Your task to perform on an android device: star an email in the gmail app Image 0: 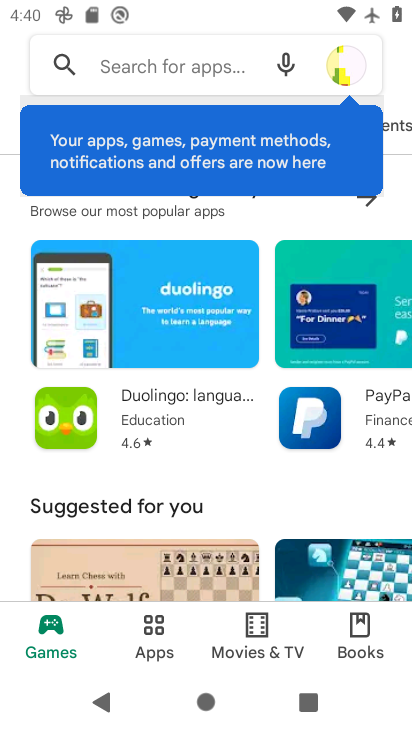
Step 0: press home button
Your task to perform on an android device: star an email in the gmail app Image 1: 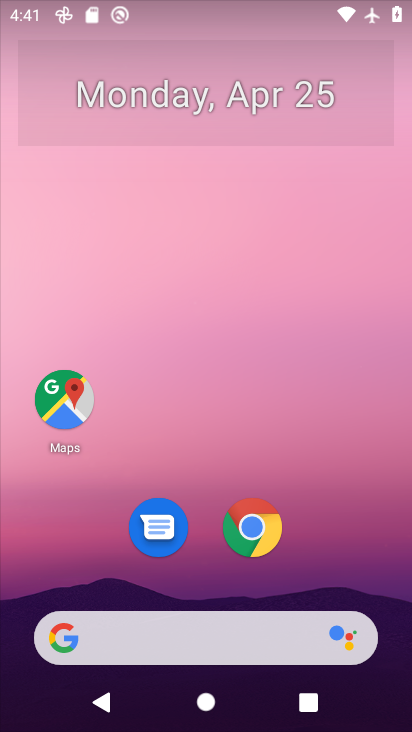
Step 1: drag from (390, 641) to (329, 239)
Your task to perform on an android device: star an email in the gmail app Image 2: 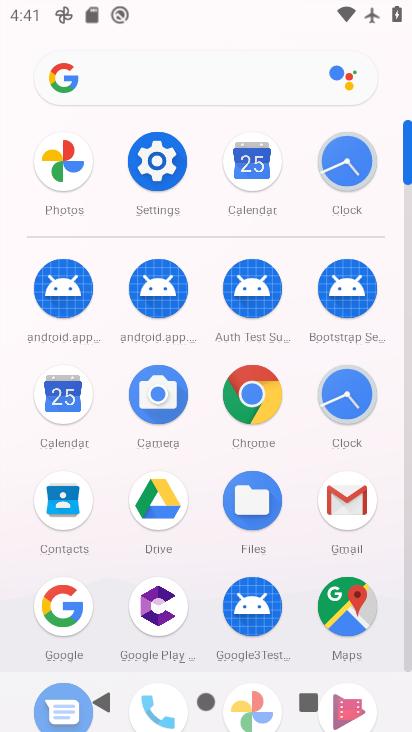
Step 2: click (405, 655)
Your task to perform on an android device: star an email in the gmail app Image 3: 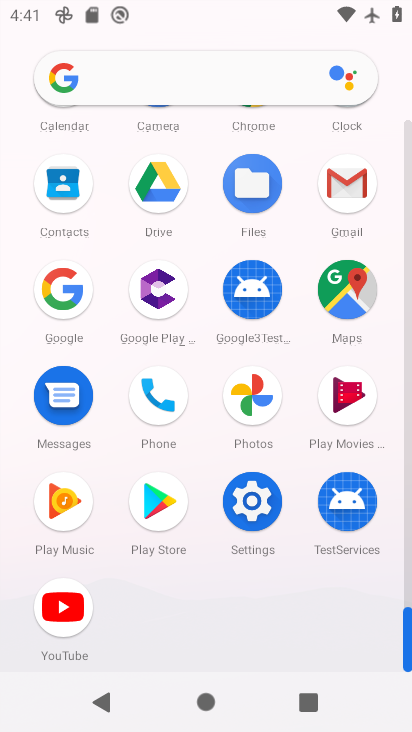
Step 3: click (342, 181)
Your task to perform on an android device: star an email in the gmail app Image 4: 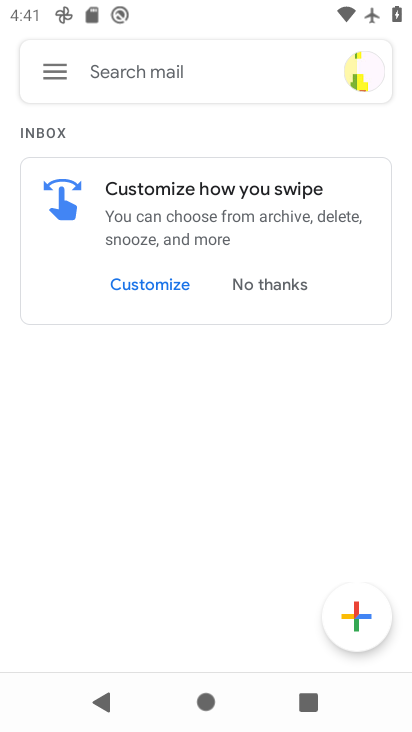
Step 4: click (47, 67)
Your task to perform on an android device: star an email in the gmail app Image 5: 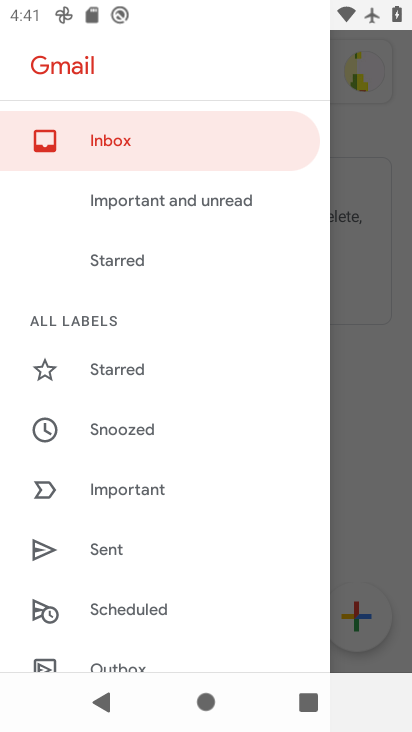
Step 5: drag from (226, 627) to (225, 206)
Your task to perform on an android device: star an email in the gmail app Image 6: 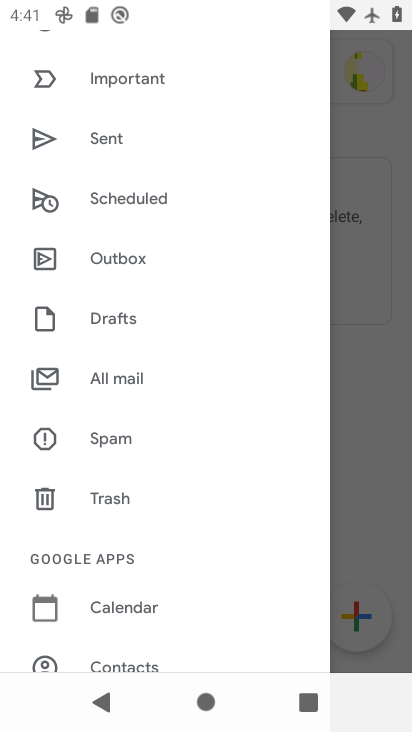
Step 6: click (99, 376)
Your task to perform on an android device: star an email in the gmail app Image 7: 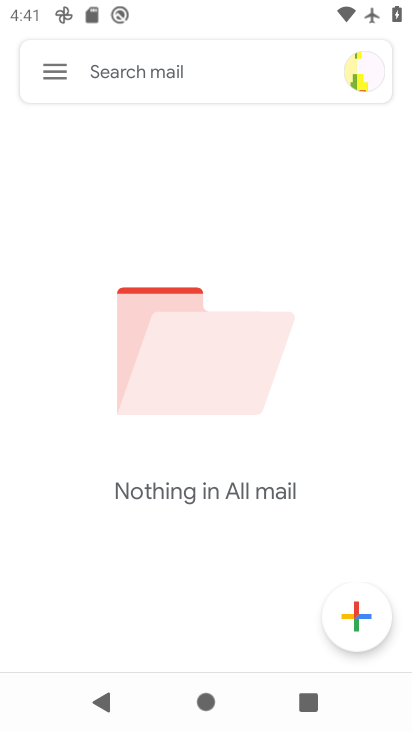
Step 7: task complete